Your task to perform on an android device: Check the settings for the Amazon Music app Image 0: 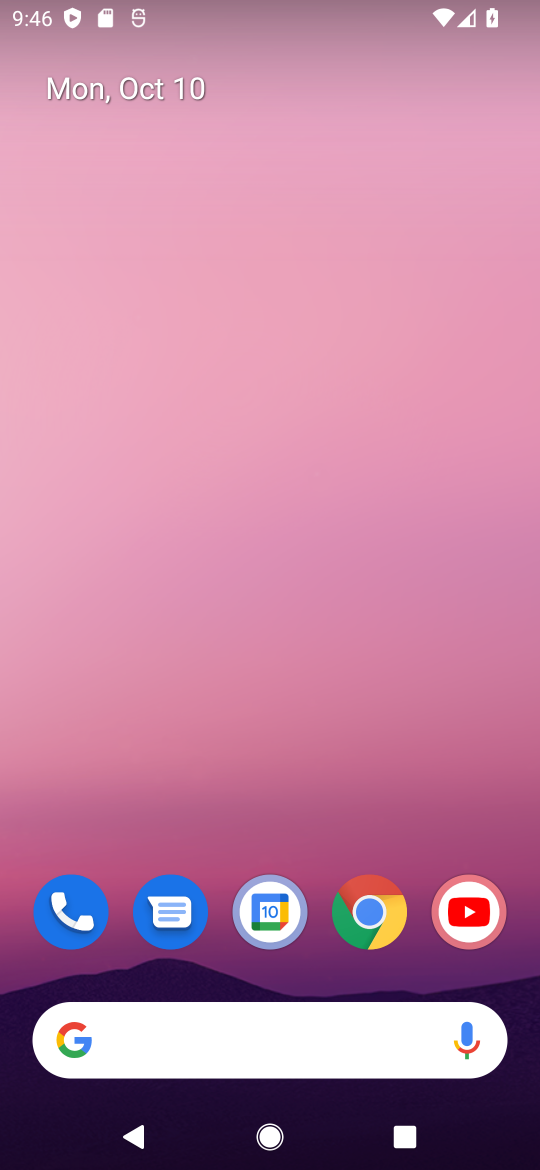
Step 0: drag from (314, 1023) to (323, 11)
Your task to perform on an android device: Check the settings for the Amazon Music app Image 1: 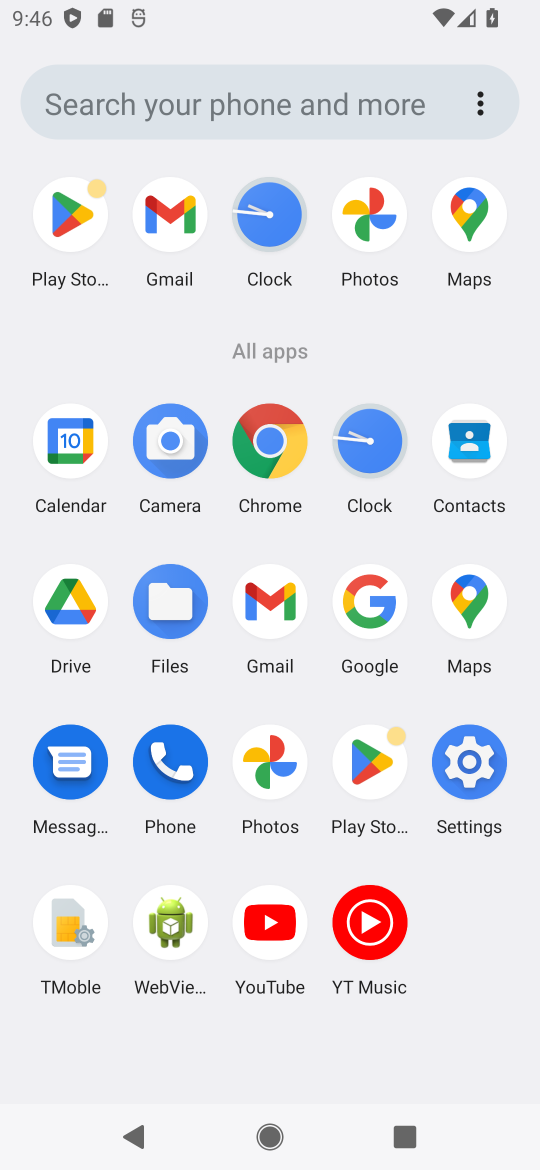
Step 1: task complete